Your task to perform on an android device: Go to Wikipedia Image 0: 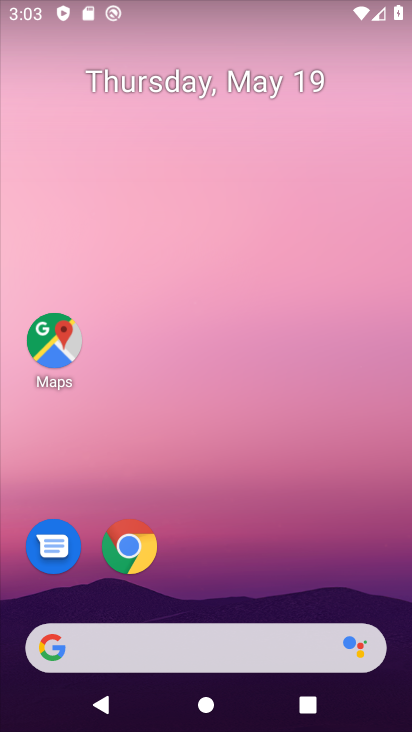
Step 0: click (127, 543)
Your task to perform on an android device: Go to Wikipedia Image 1: 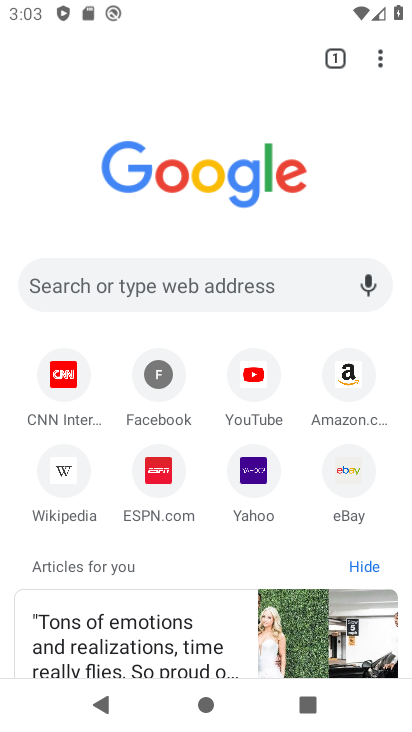
Step 1: click (63, 466)
Your task to perform on an android device: Go to Wikipedia Image 2: 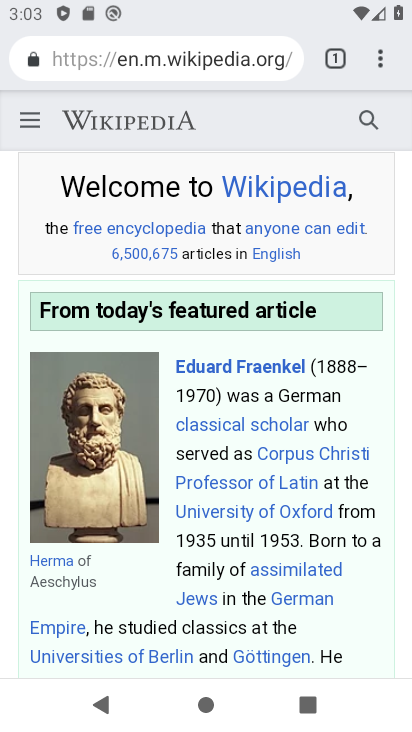
Step 2: task complete